Your task to perform on an android device: open app "Mercado Libre" (install if not already installed) Image 0: 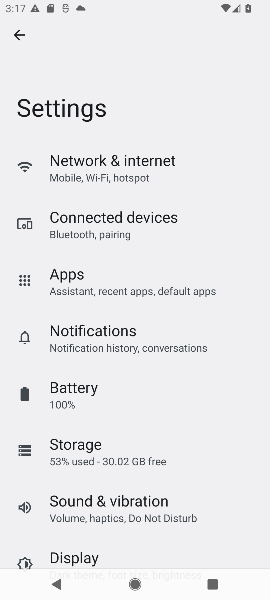
Step 0: press home button
Your task to perform on an android device: open app "Mercado Libre" (install if not already installed) Image 1: 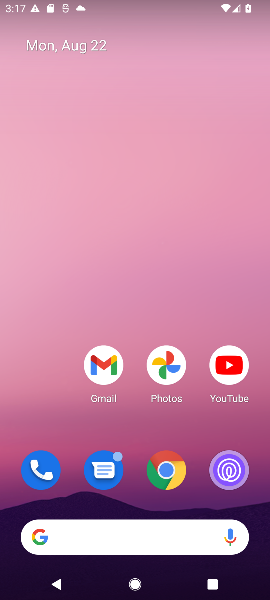
Step 1: drag from (156, 487) to (170, 81)
Your task to perform on an android device: open app "Mercado Libre" (install if not already installed) Image 2: 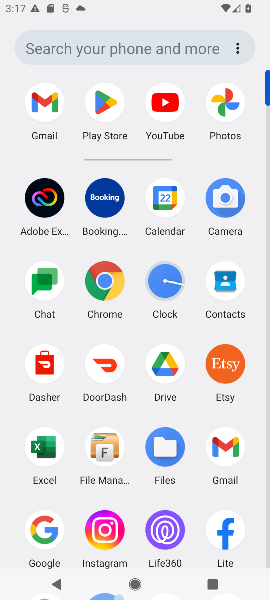
Step 2: click (112, 97)
Your task to perform on an android device: open app "Mercado Libre" (install if not already installed) Image 3: 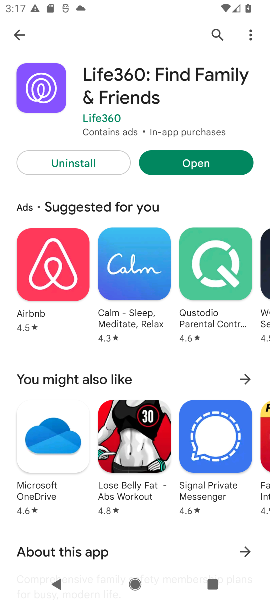
Step 3: click (21, 35)
Your task to perform on an android device: open app "Mercado Libre" (install if not already installed) Image 4: 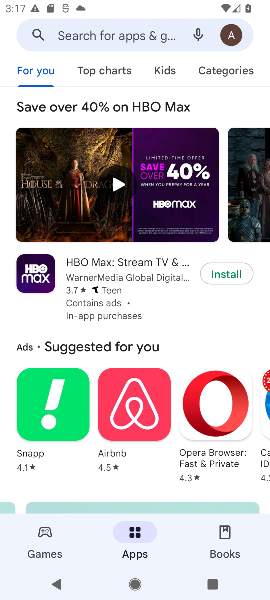
Step 4: click (110, 32)
Your task to perform on an android device: open app "Mercado Libre" (install if not already installed) Image 5: 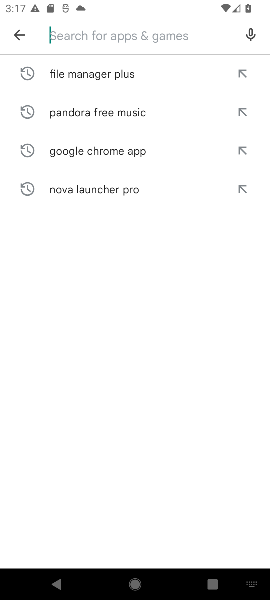
Step 5: type "Mercado Libre "
Your task to perform on an android device: open app "Mercado Libre" (install if not already installed) Image 6: 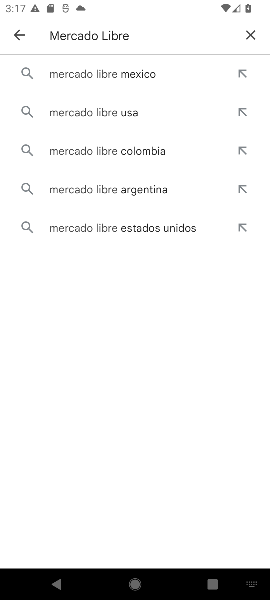
Step 6: click (115, 68)
Your task to perform on an android device: open app "Mercado Libre" (install if not already installed) Image 7: 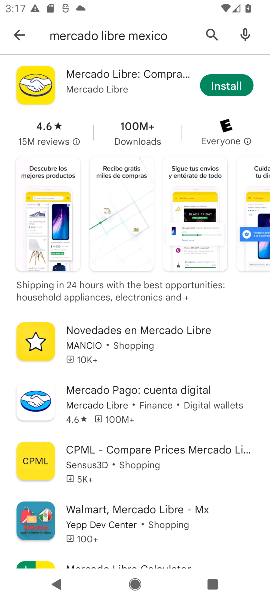
Step 7: click (231, 74)
Your task to perform on an android device: open app "Mercado Libre" (install if not already installed) Image 8: 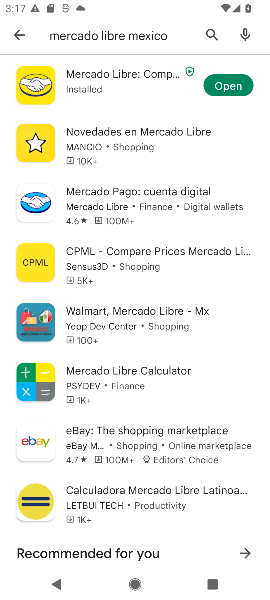
Step 8: click (231, 88)
Your task to perform on an android device: open app "Mercado Libre" (install if not already installed) Image 9: 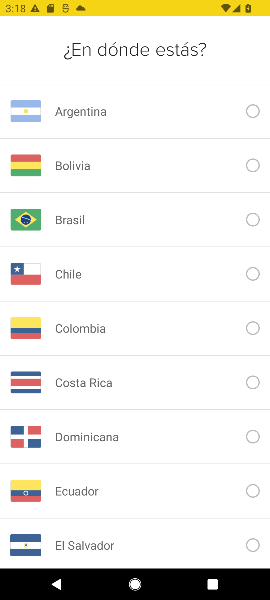
Step 9: task complete